Your task to perform on an android device: show emergency info Image 0: 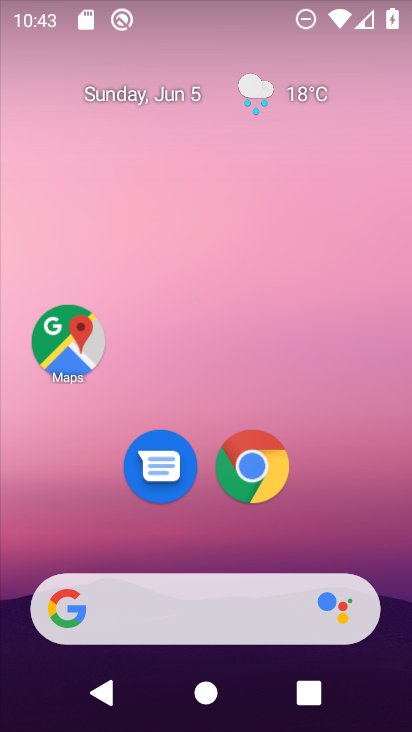
Step 0: drag from (354, 489) to (237, 36)
Your task to perform on an android device: show emergency info Image 1: 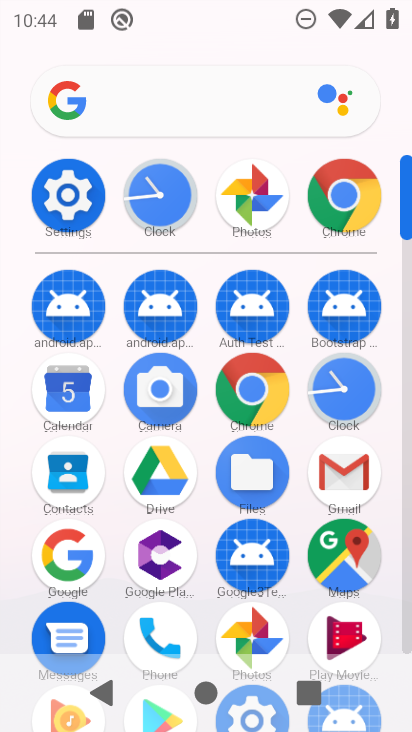
Step 1: drag from (13, 623) to (18, 262)
Your task to perform on an android device: show emergency info Image 2: 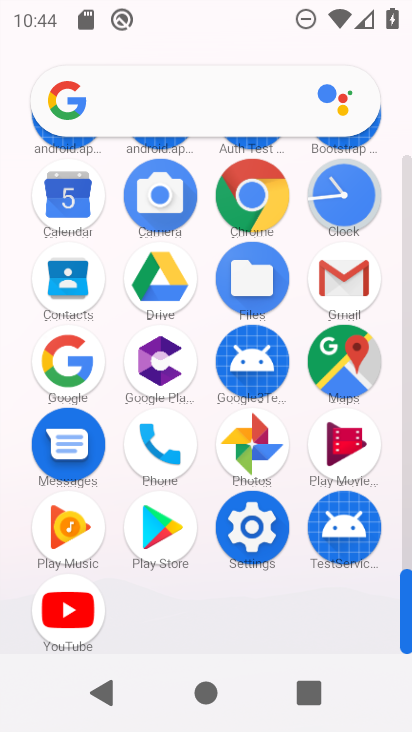
Step 2: click (253, 526)
Your task to perform on an android device: show emergency info Image 3: 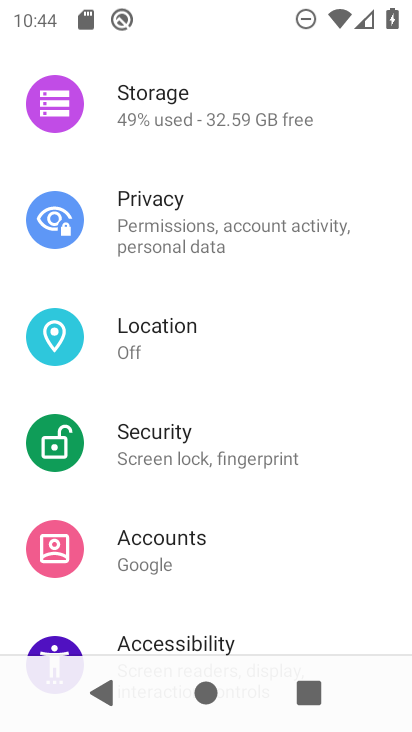
Step 3: drag from (321, 565) to (311, 118)
Your task to perform on an android device: show emergency info Image 4: 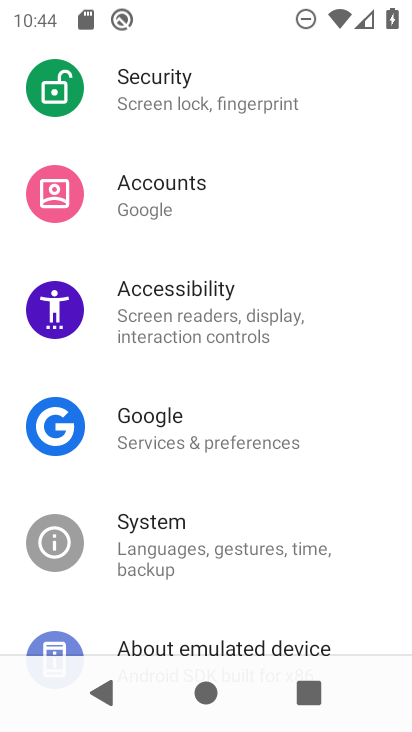
Step 4: drag from (314, 601) to (319, 96)
Your task to perform on an android device: show emergency info Image 5: 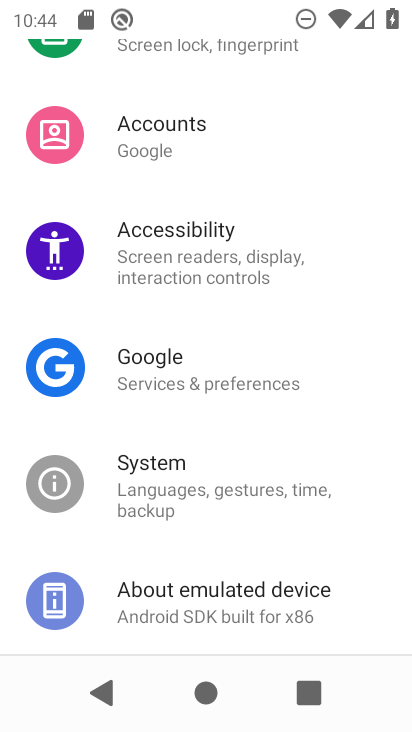
Step 5: click (253, 598)
Your task to perform on an android device: show emergency info Image 6: 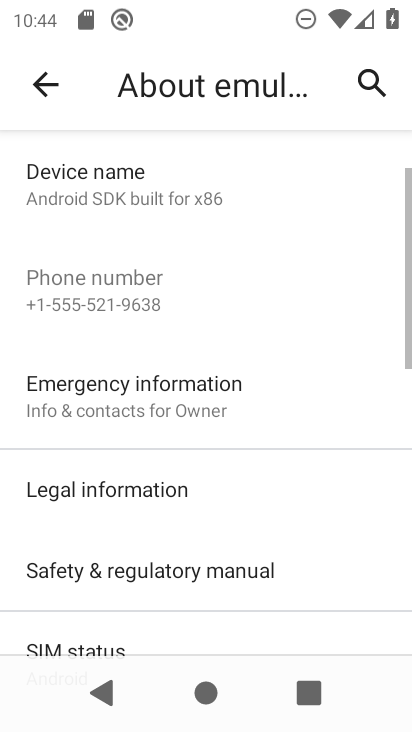
Step 6: task complete